Your task to perform on an android device: toggle location history Image 0: 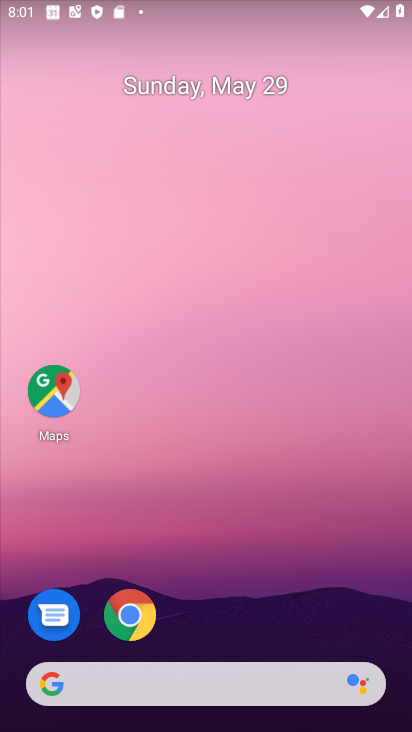
Step 0: drag from (271, 629) to (275, 153)
Your task to perform on an android device: toggle location history Image 1: 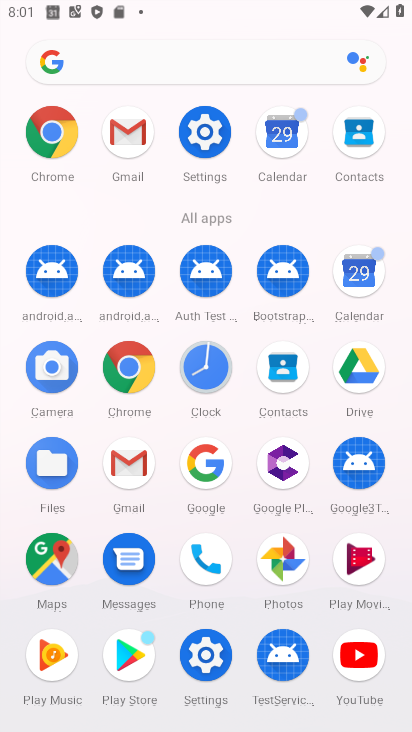
Step 1: click (199, 130)
Your task to perform on an android device: toggle location history Image 2: 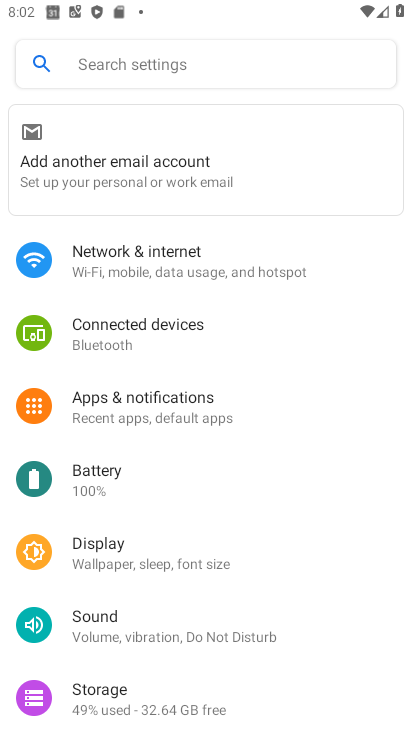
Step 2: drag from (326, 669) to (292, 370)
Your task to perform on an android device: toggle location history Image 3: 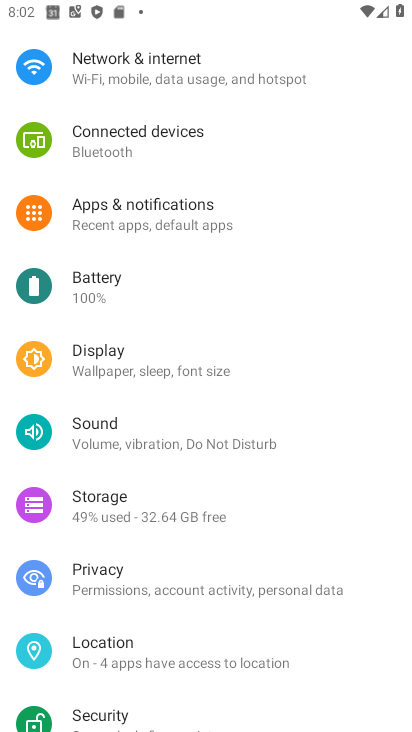
Step 3: click (214, 629)
Your task to perform on an android device: toggle location history Image 4: 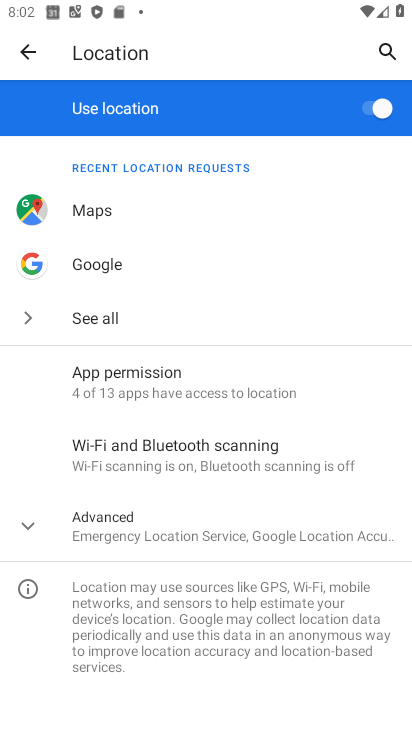
Step 4: drag from (279, 623) to (261, 262)
Your task to perform on an android device: toggle location history Image 5: 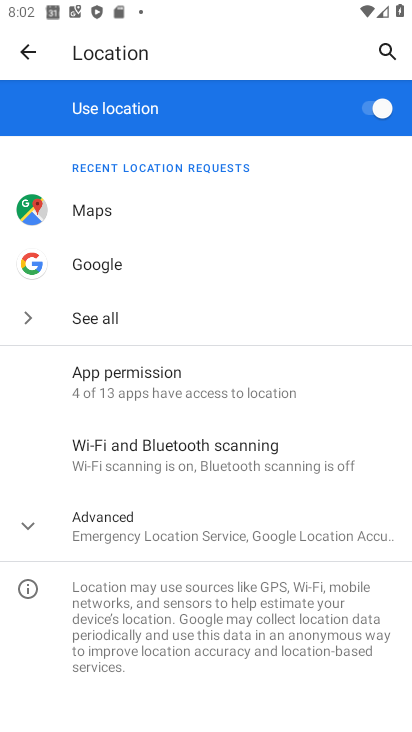
Step 5: click (18, 531)
Your task to perform on an android device: toggle location history Image 6: 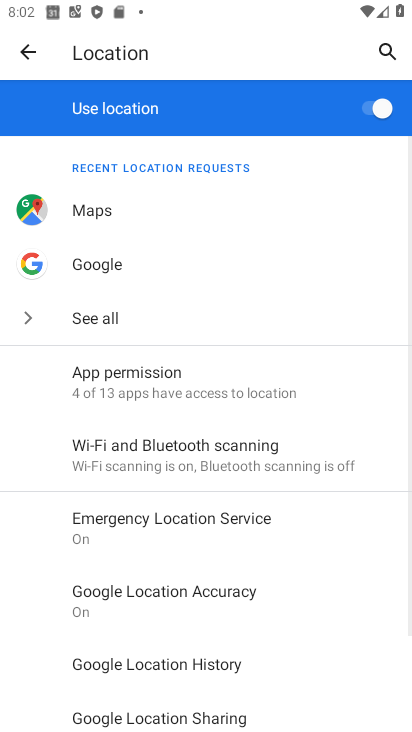
Step 6: drag from (360, 691) to (309, 343)
Your task to perform on an android device: toggle location history Image 7: 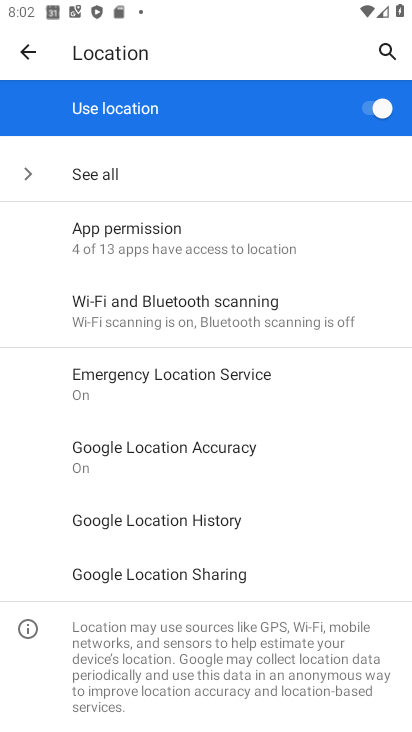
Step 7: click (188, 513)
Your task to perform on an android device: toggle location history Image 8: 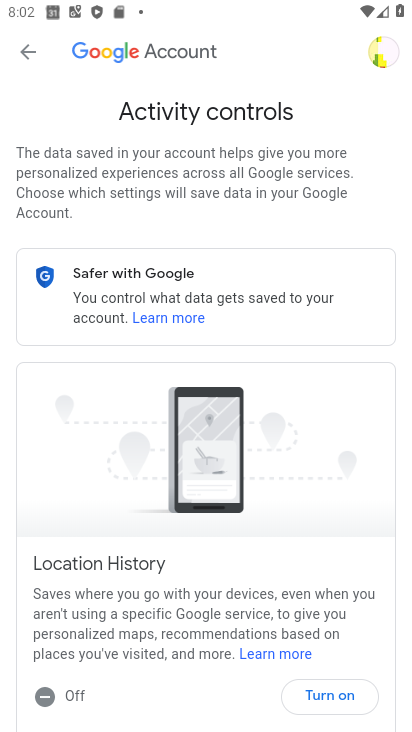
Step 8: click (322, 699)
Your task to perform on an android device: toggle location history Image 9: 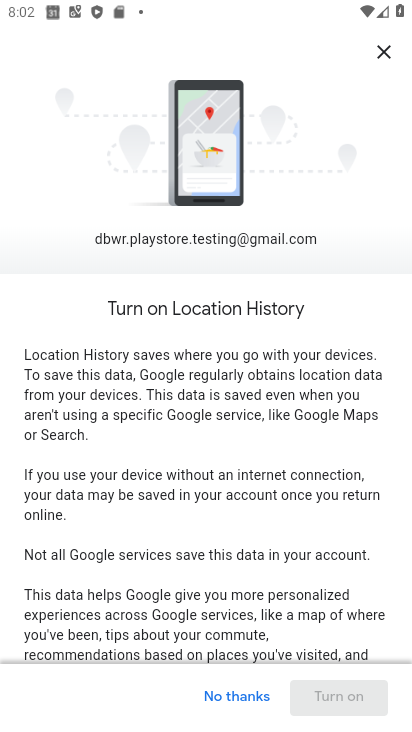
Step 9: task complete